Your task to perform on an android device: turn off translation in the chrome app Image 0: 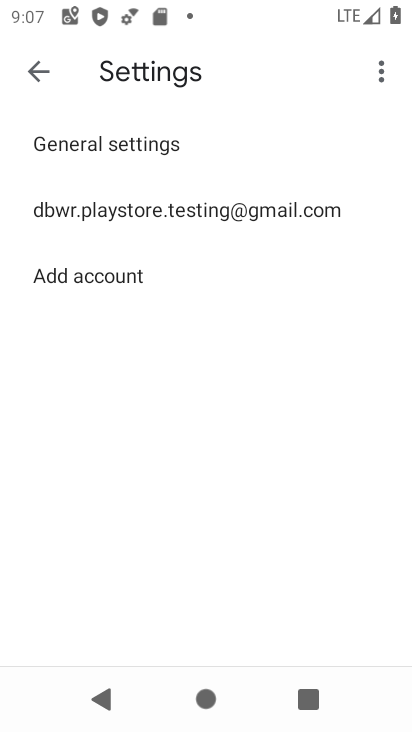
Step 0: press home button
Your task to perform on an android device: turn off translation in the chrome app Image 1: 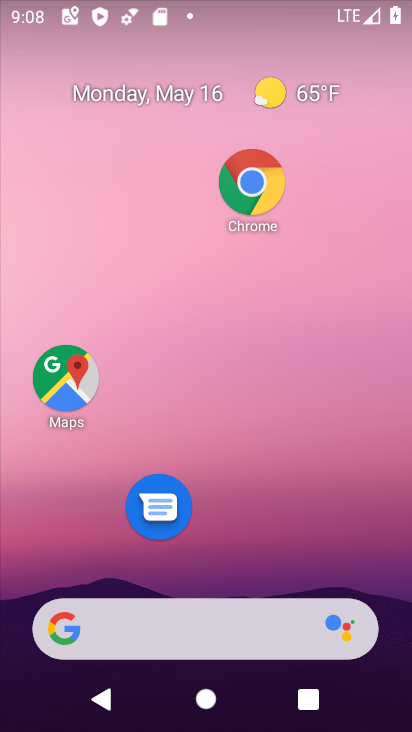
Step 1: drag from (227, 601) to (237, 3)
Your task to perform on an android device: turn off translation in the chrome app Image 2: 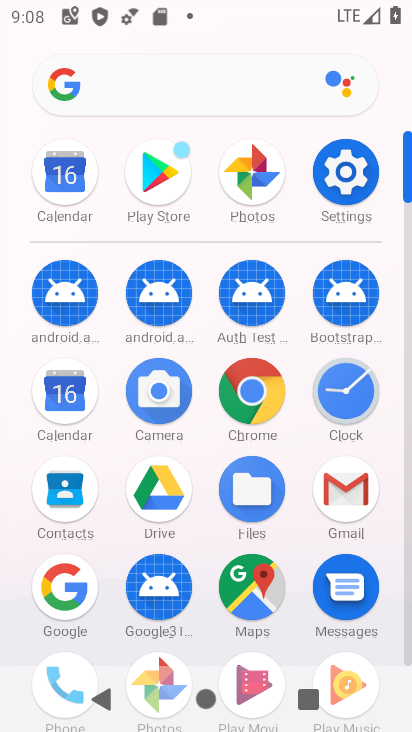
Step 2: click (231, 390)
Your task to perform on an android device: turn off translation in the chrome app Image 3: 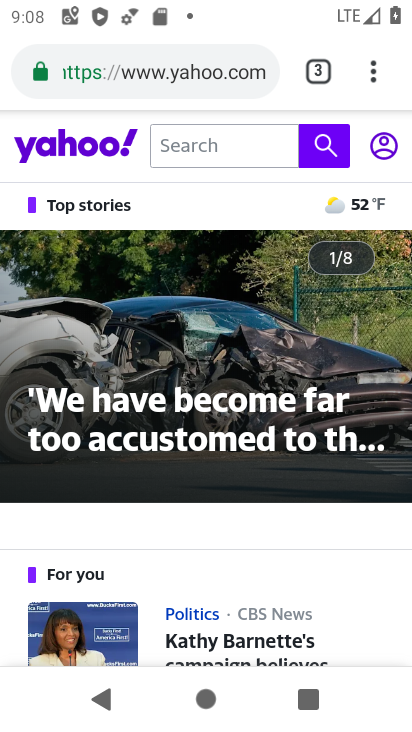
Step 3: click (371, 86)
Your task to perform on an android device: turn off translation in the chrome app Image 4: 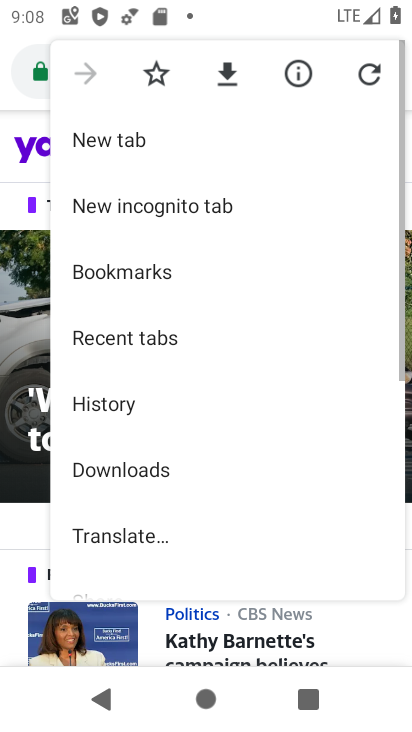
Step 4: drag from (170, 451) to (141, 114)
Your task to perform on an android device: turn off translation in the chrome app Image 5: 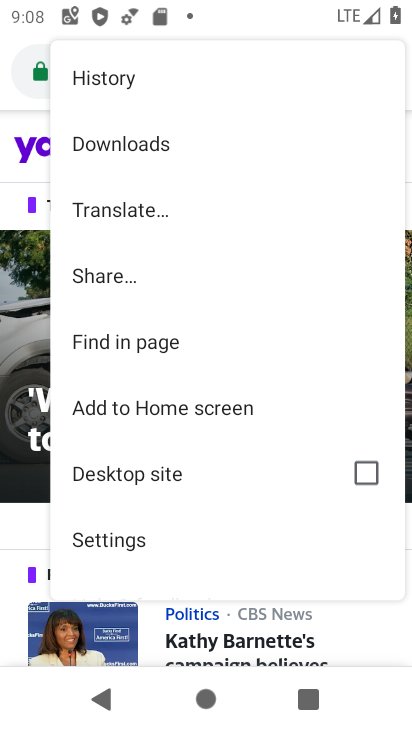
Step 5: click (113, 531)
Your task to perform on an android device: turn off translation in the chrome app Image 6: 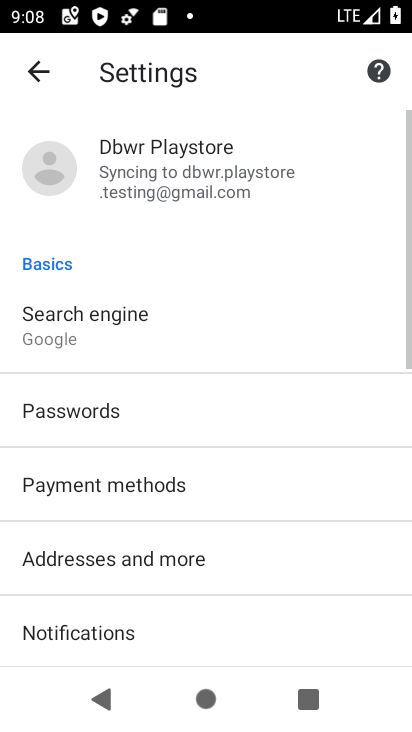
Step 6: drag from (144, 552) to (99, 175)
Your task to perform on an android device: turn off translation in the chrome app Image 7: 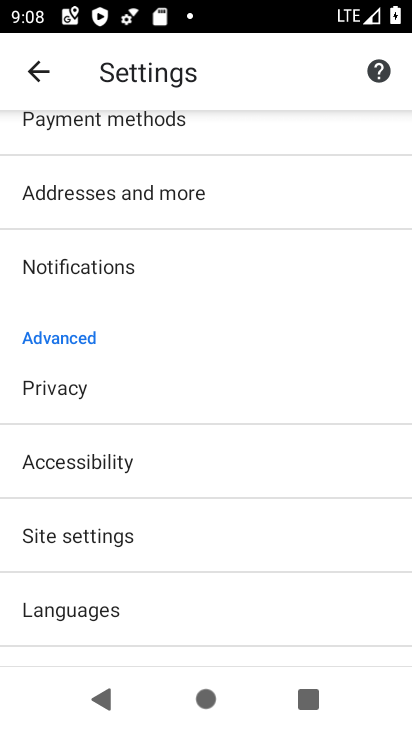
Step 7: click (123, 534)
Your task to perform on an android device: turn off translation in the chrome app Image 8: 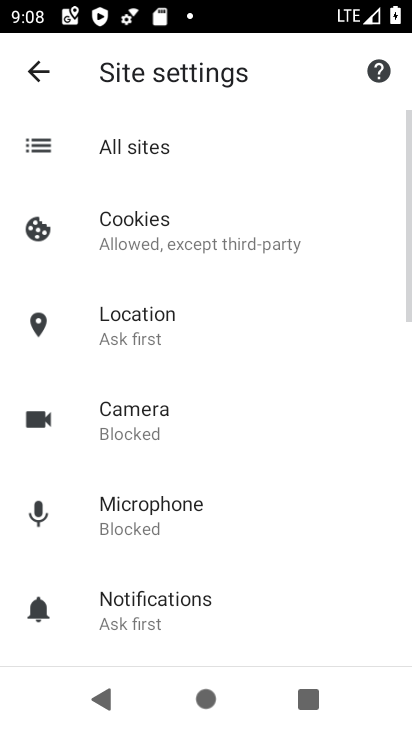
Step 8: click (41, 75)
Your task to perform on an android device: turn off translation in the chrome app Image 9: 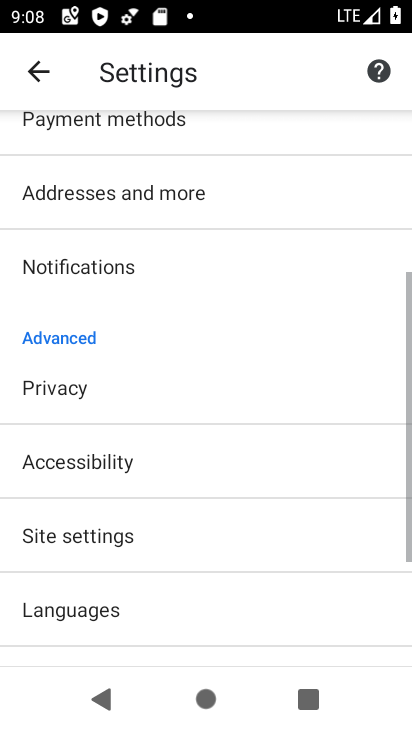
Step 9: click (68, 617)
Your task to perform on an android device: turn off translation in the chrome app Image 10: 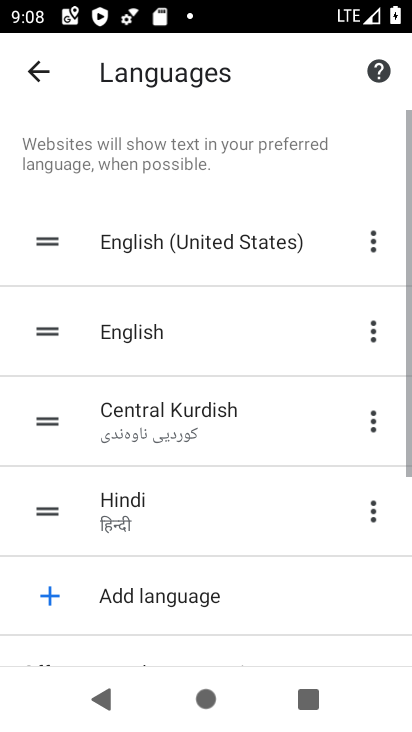
Step 10: task complete